Your task to perform on an android device: change keyboard looks Image 0: 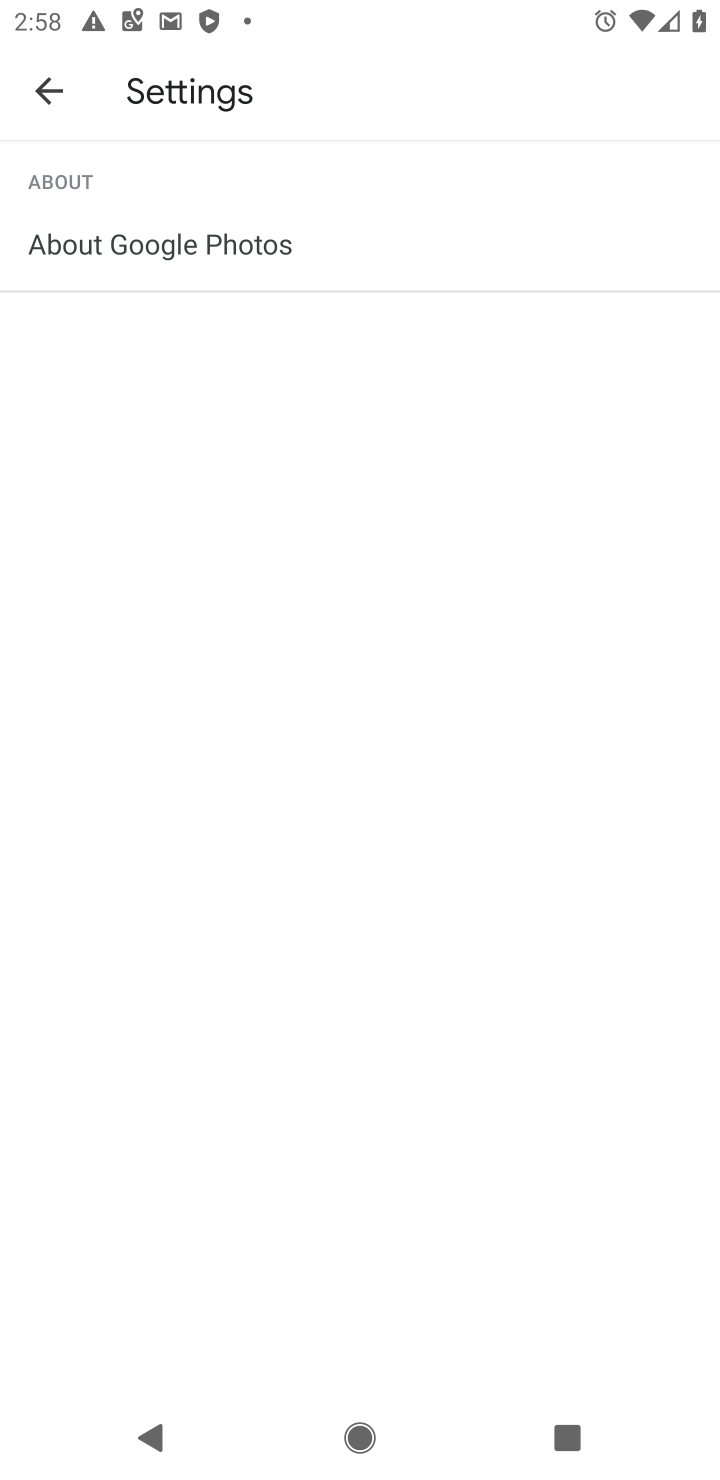
Step 0: press home button
Your task to perform on an android device: change keyboard looks Image 1: 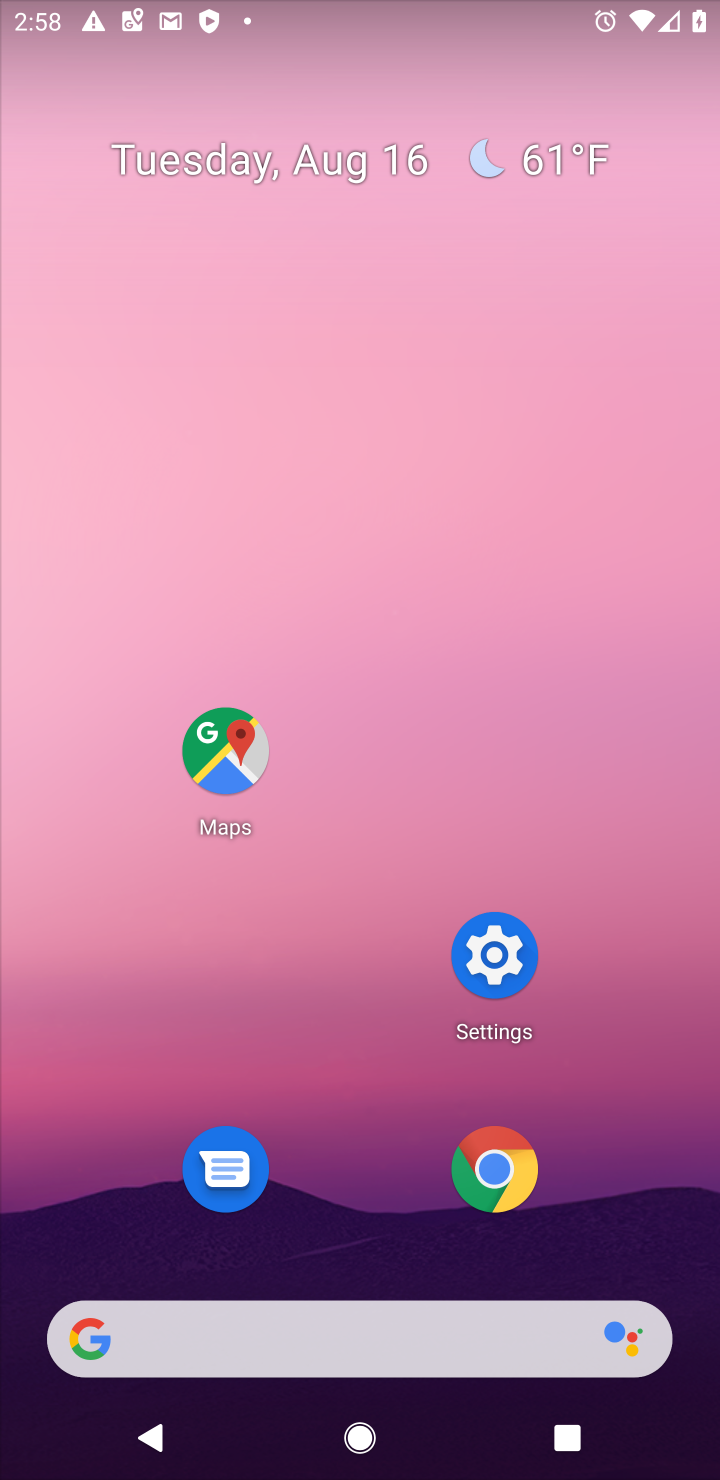
Step 1: click (492, 967)
Your task to perform on an android device: change keyboard looks Image 2: 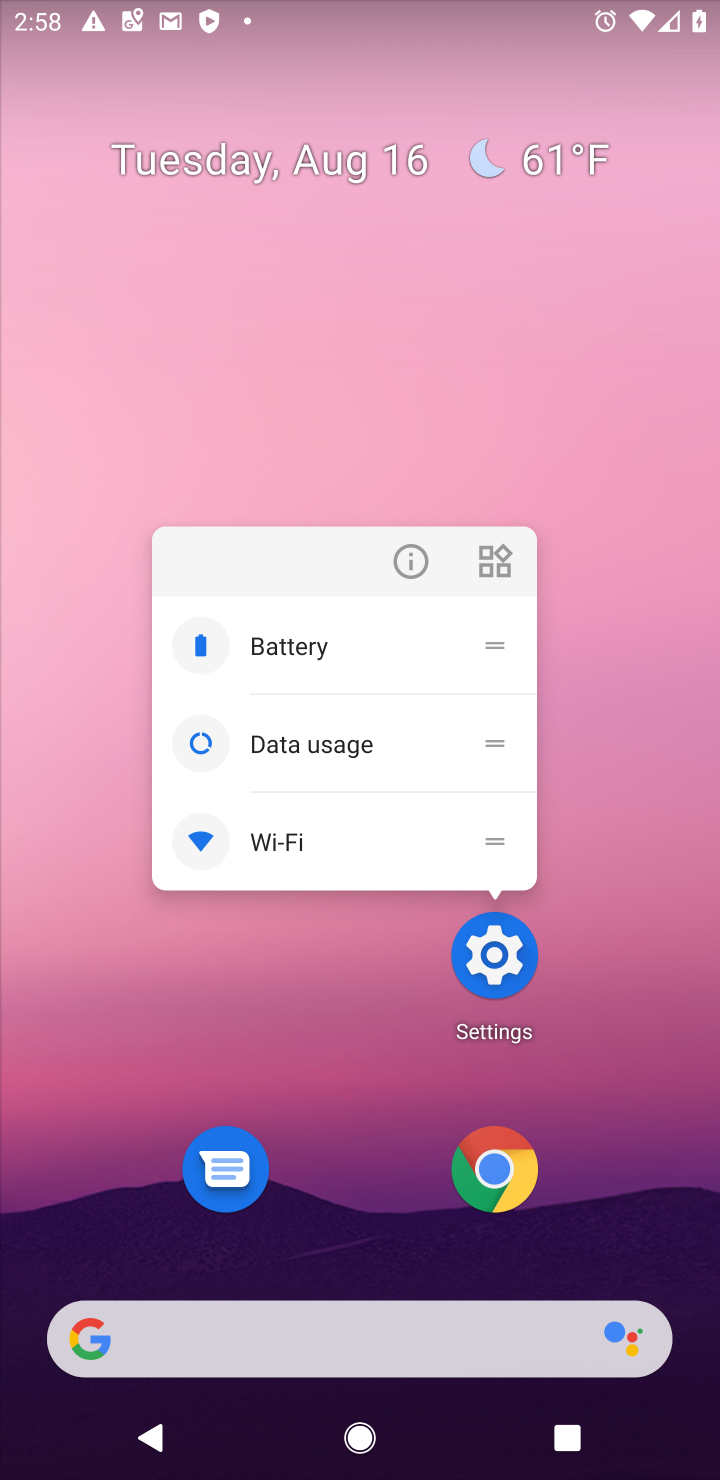
Step 2: click (495, 957)
Your task to perform on an android device: change keyboard looks Image 3: 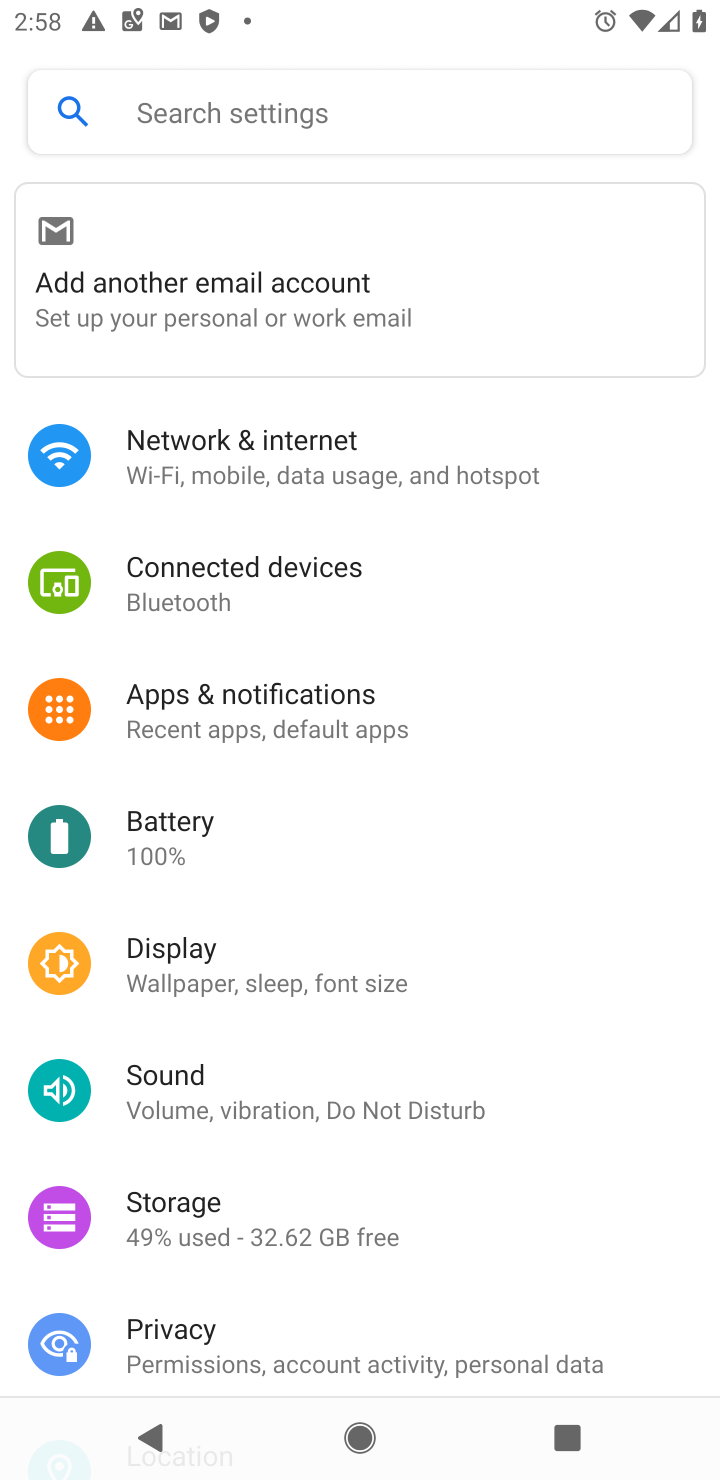
Step 3: drag from (402, 1293) to (718, 68)
Your task to perform on an android device: change keyboard looks Image 4: 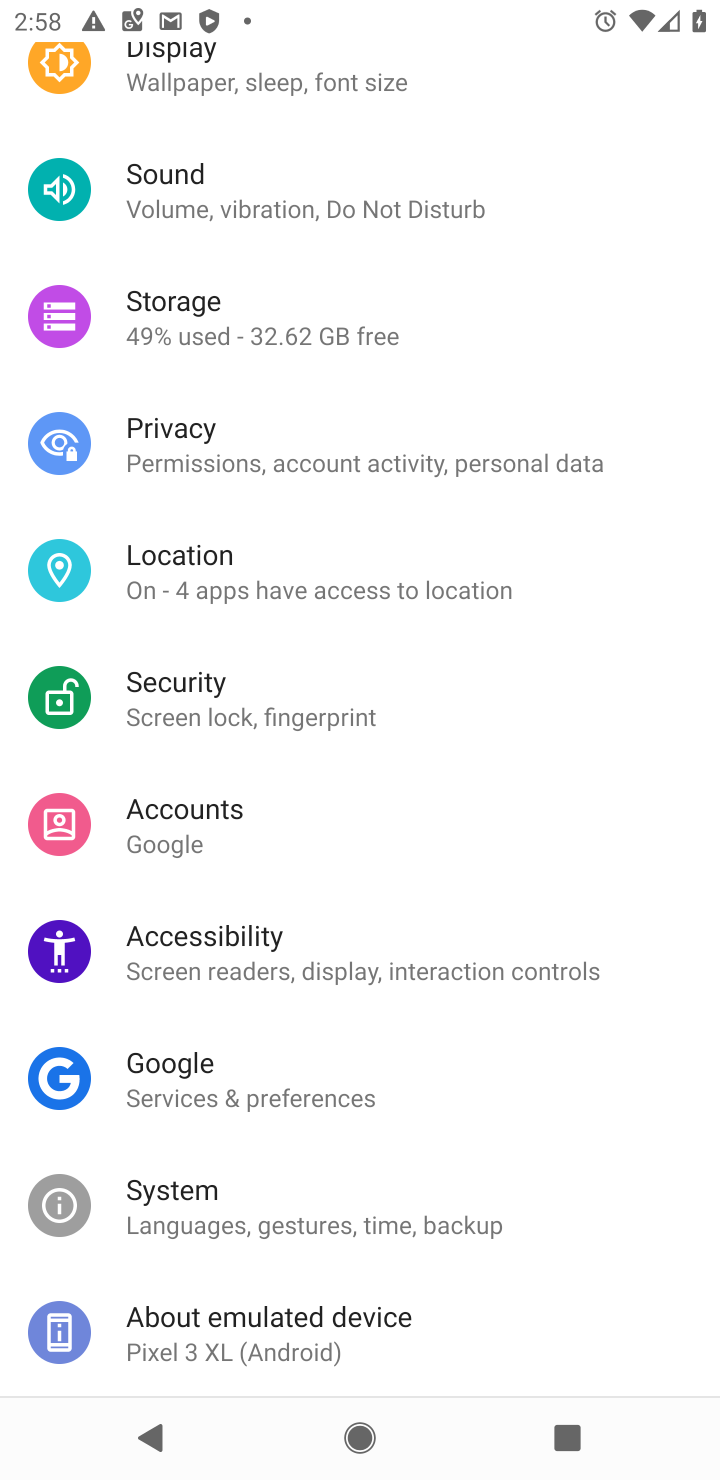
Step 4: drag from (403, 1287) to (535, 635)
Your task to perform on an android device: change keyboard looks Image 5: 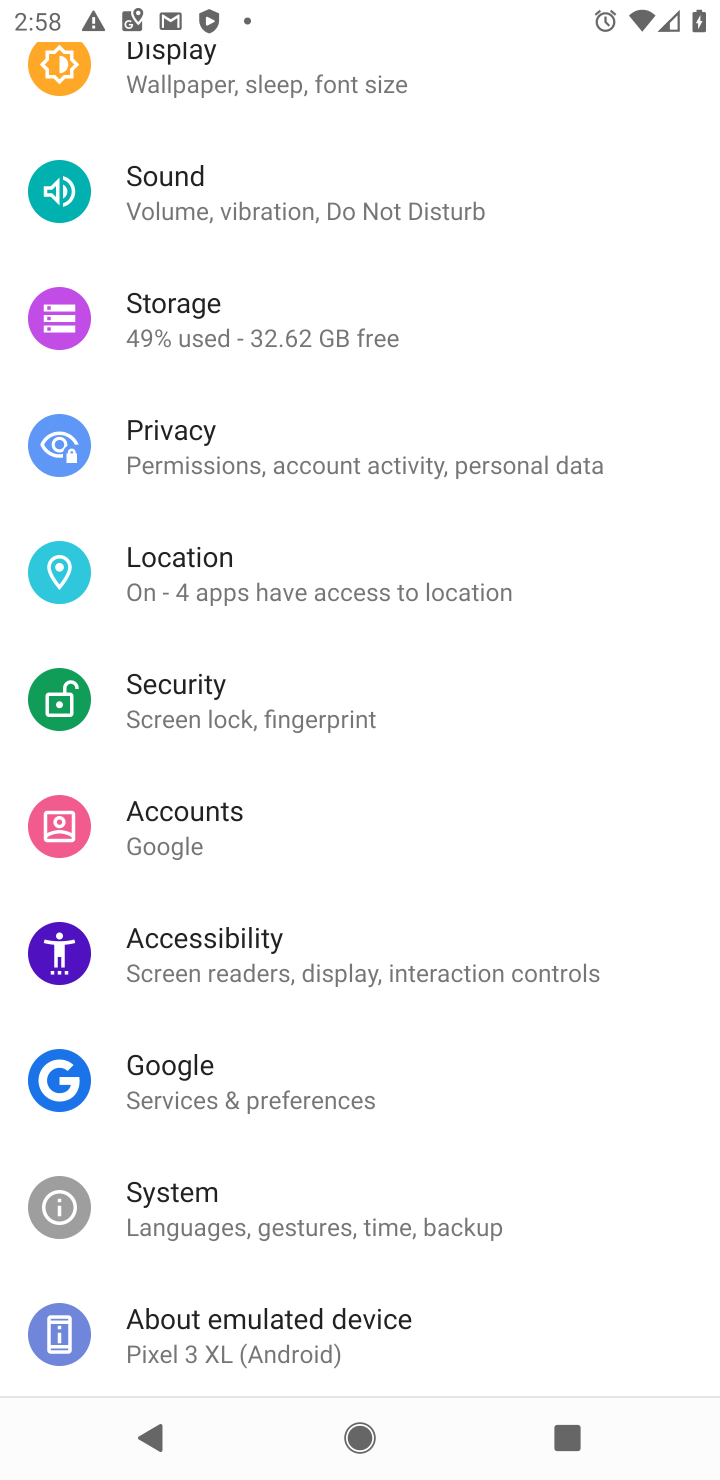
Step 5: click (231, 1197)
Your task to perform on an android device: change keyboard looks Image 6: 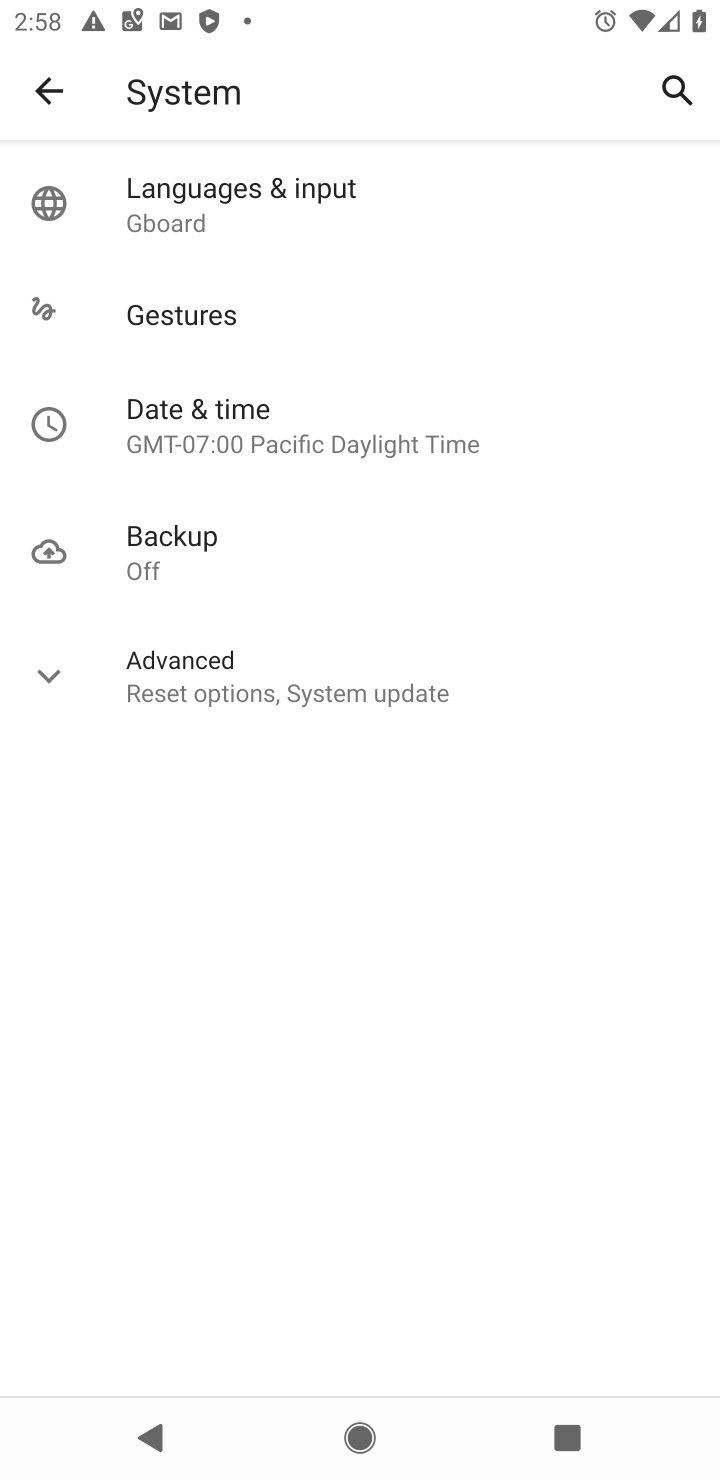
Step 6: click (230, 200)
Your task to perform on an android device: change keyboard looks Image 7: 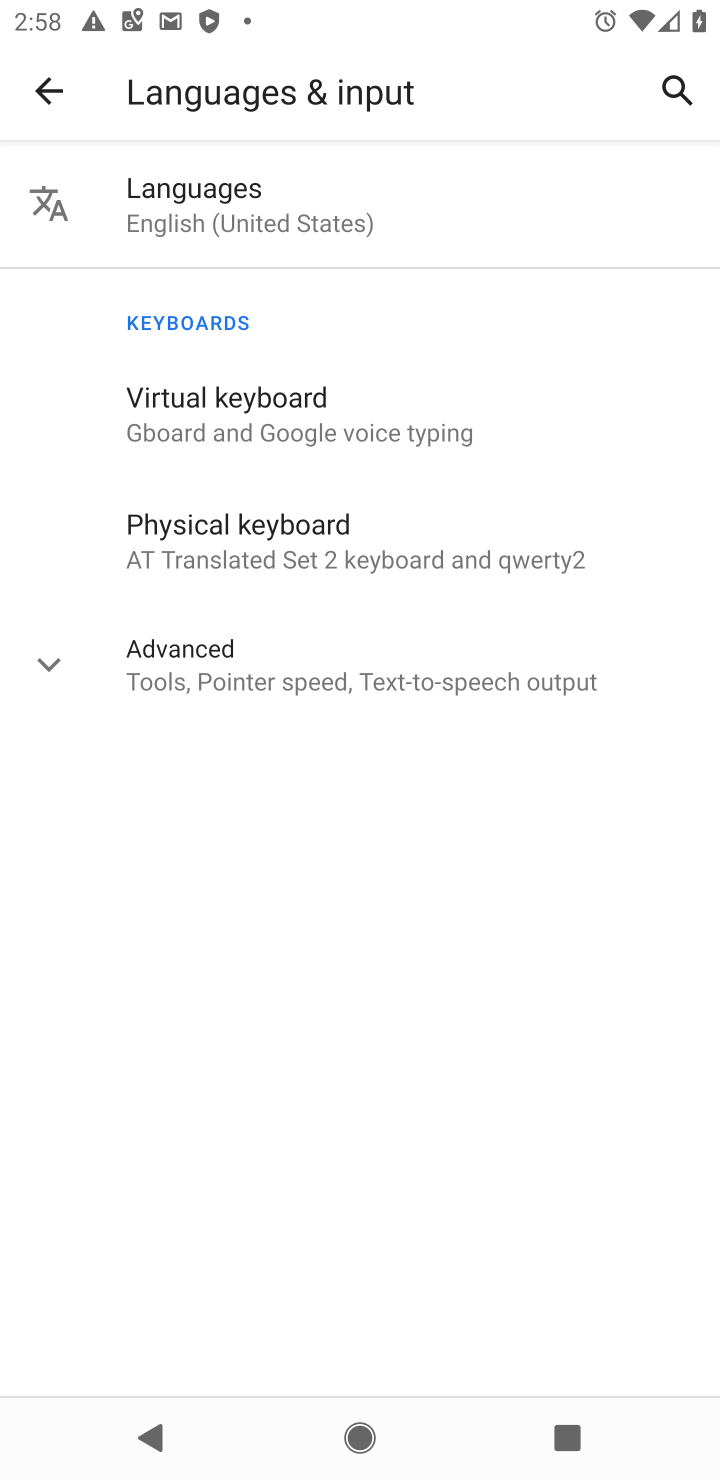
Step 7: click (238, 401)
Your task to perform on an android device: change keyboard looks Image 8: 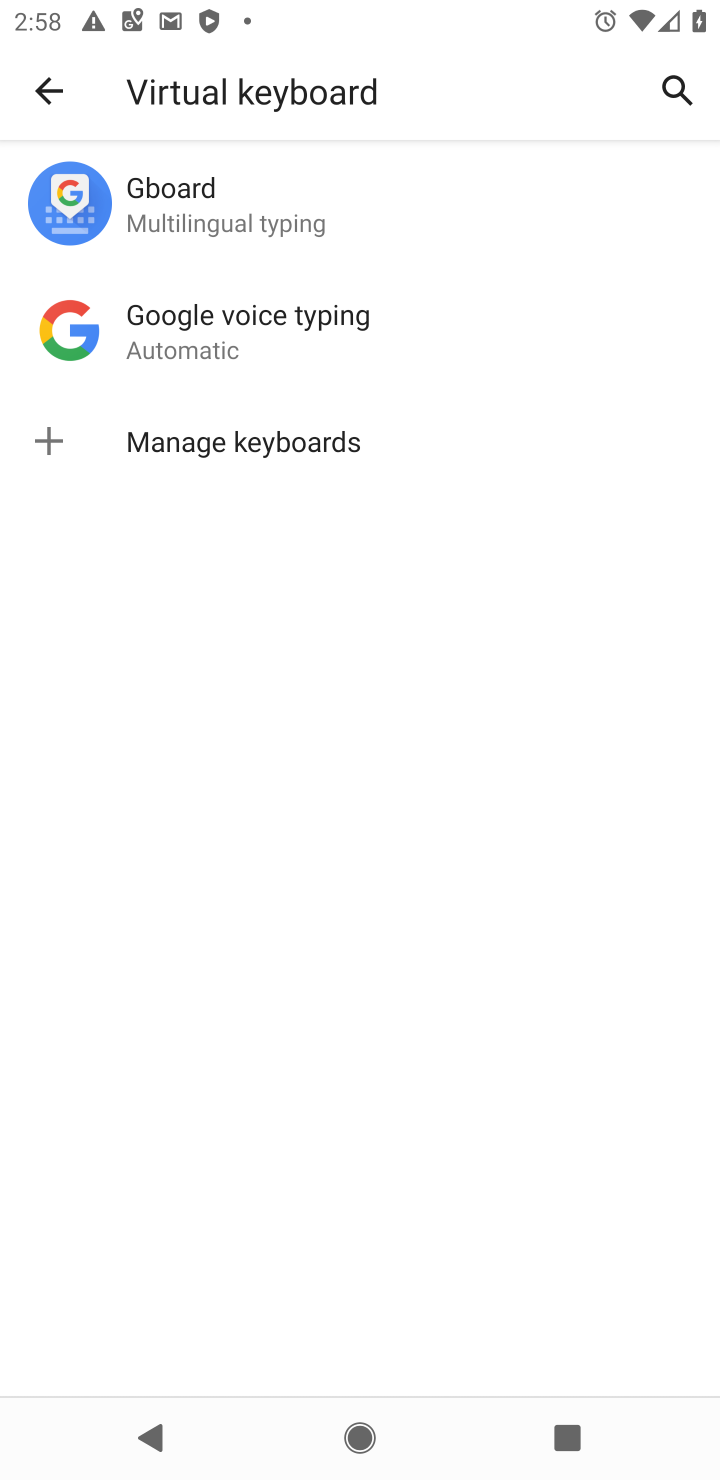
Step 8: click (197, 187)
Your task to perform on an android device: change keyboard looks Image 9: 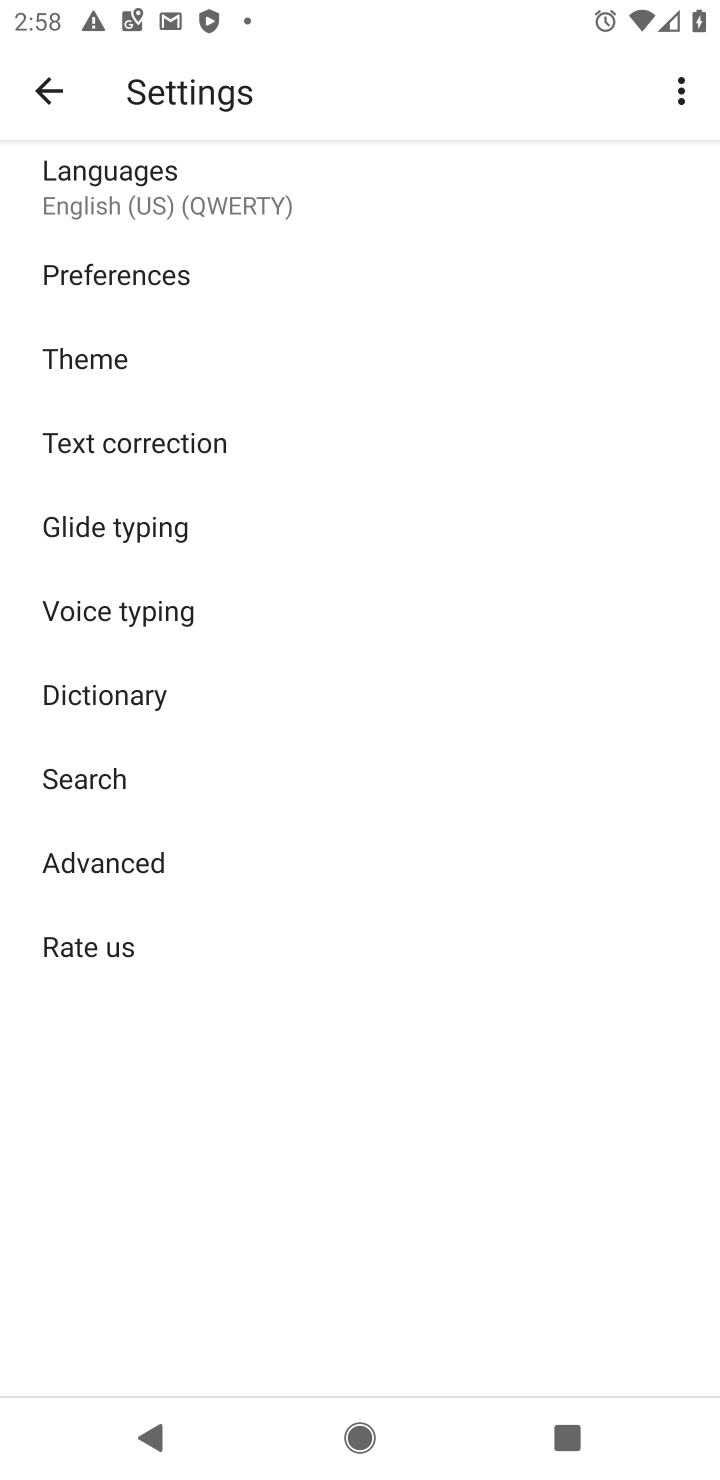
Step 9: click (86, 362)
Your task to perform on an android device: change keyboard looks Image 10: 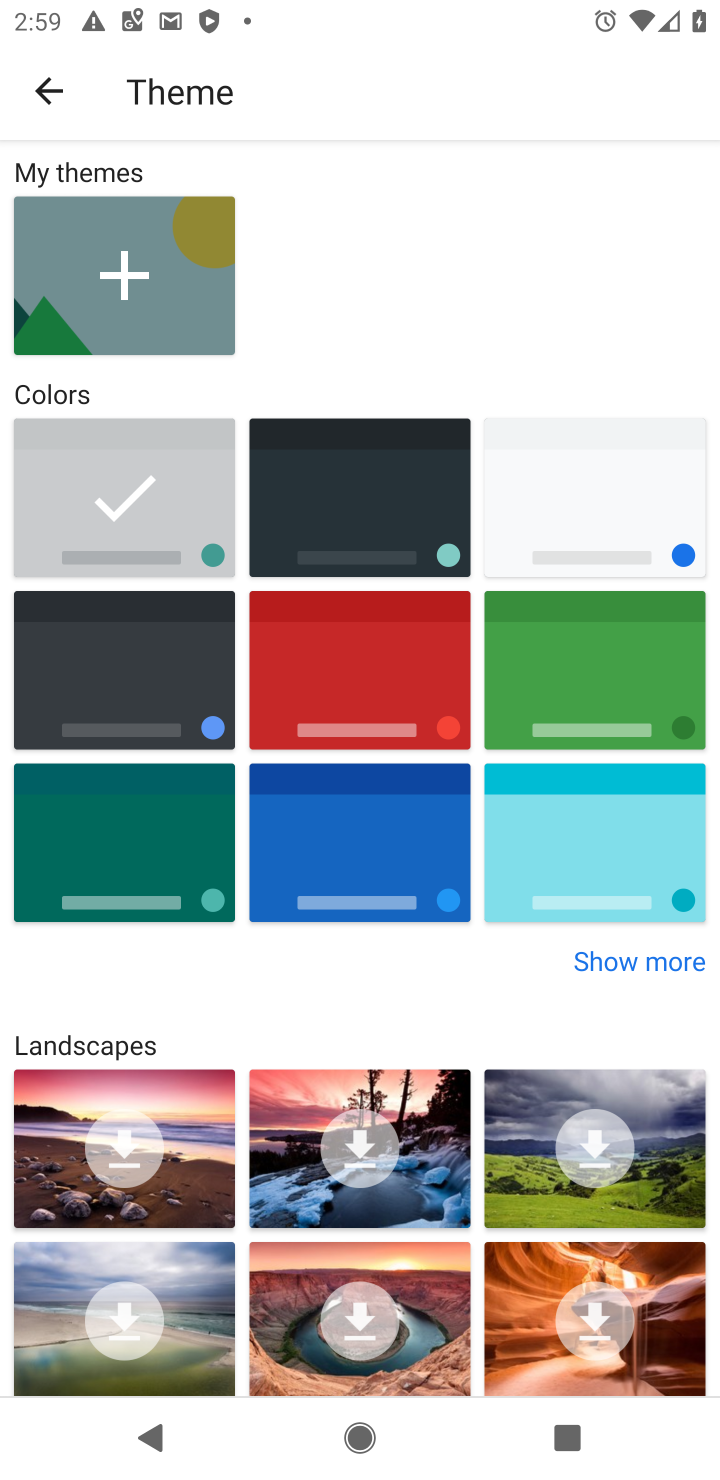
Step 10: click (350, 844)
Your task to perform on an android device: change keyboard looks Image 11: 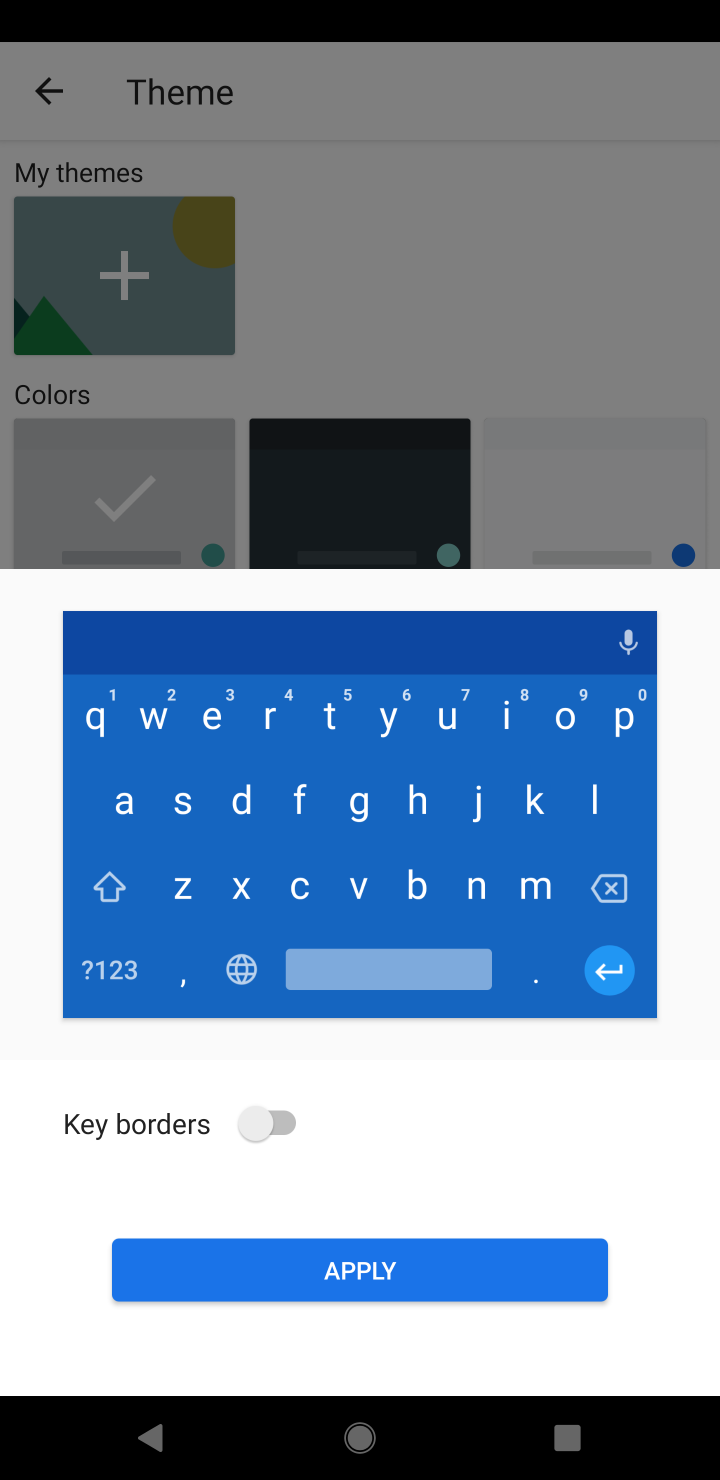
Step 11: click (364, 1265)
Your task to perform on an android device: change keyboard looks Image 12: 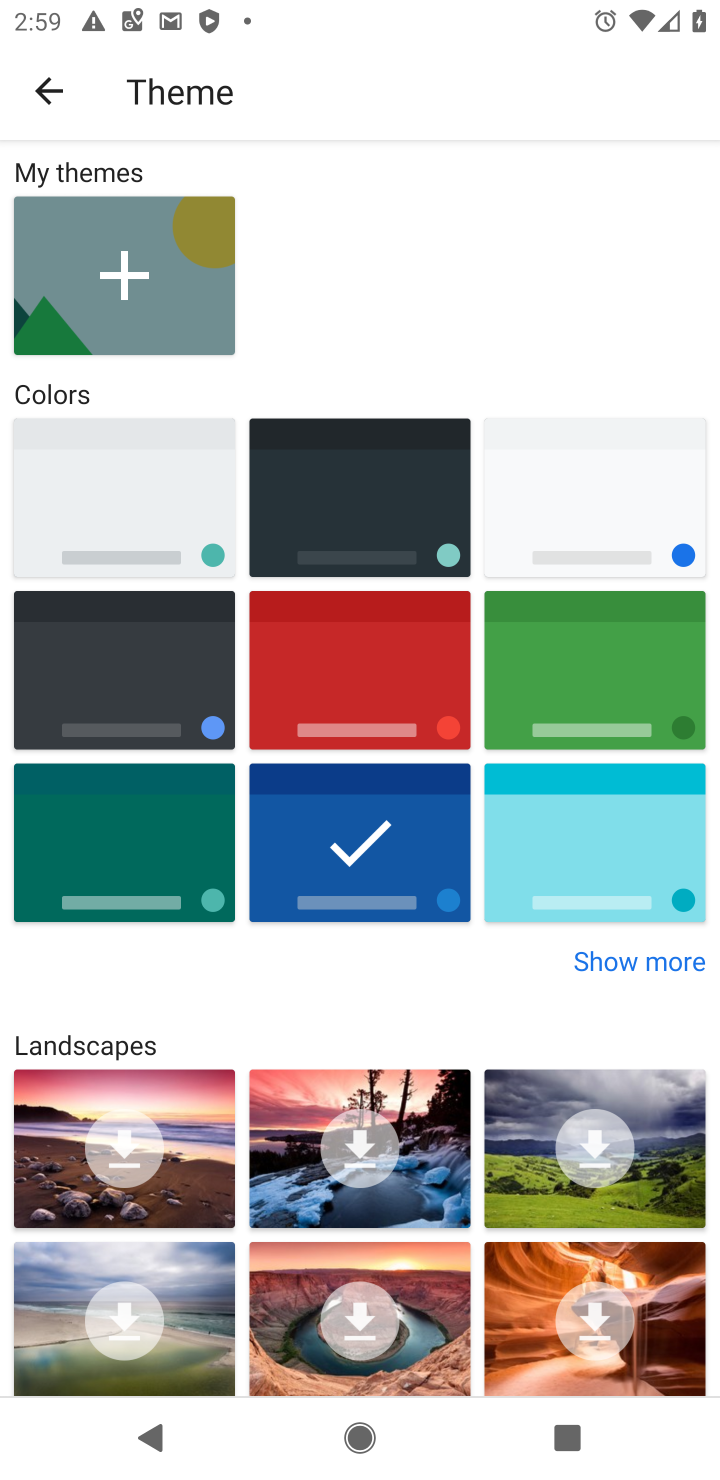
Step 12: task complete